Your task to perform on an android device: Open Google Chrome Image 0: 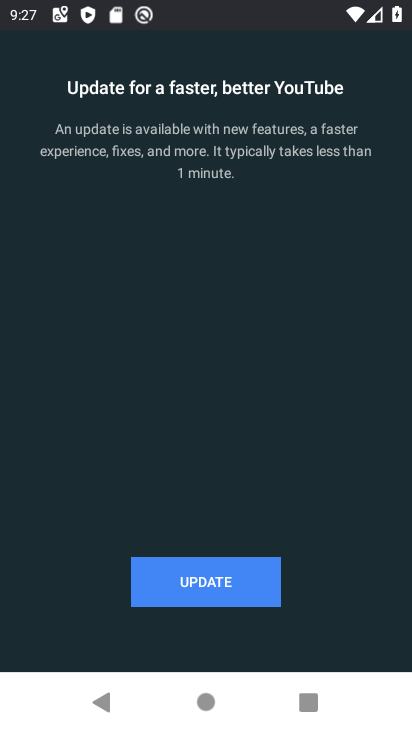
Step 0: drag from (233, 667) to (400, 650)
Your task to perform on an android device: Open Google Chrome Image 1: 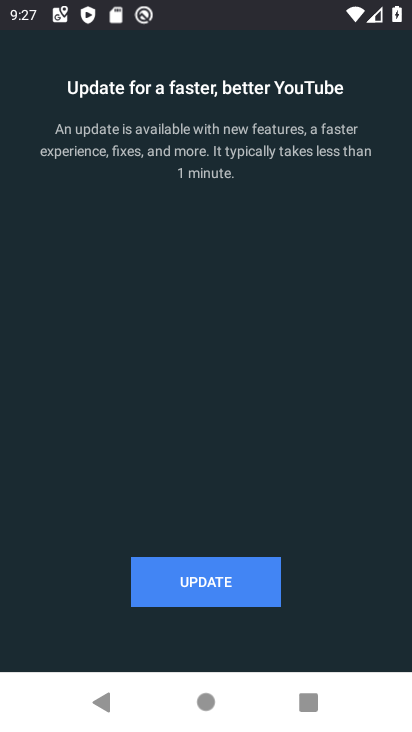
Step 1: press back button
Your task to perform on an android device: Open Google Chrome Image 2: 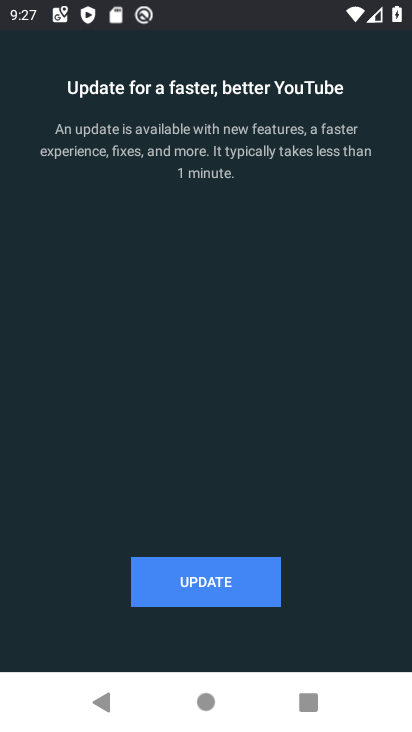
Step 2: drag from (400, 650) to (367, 418)
Your task to perform on an android device: Open Google Chrome Image 3: 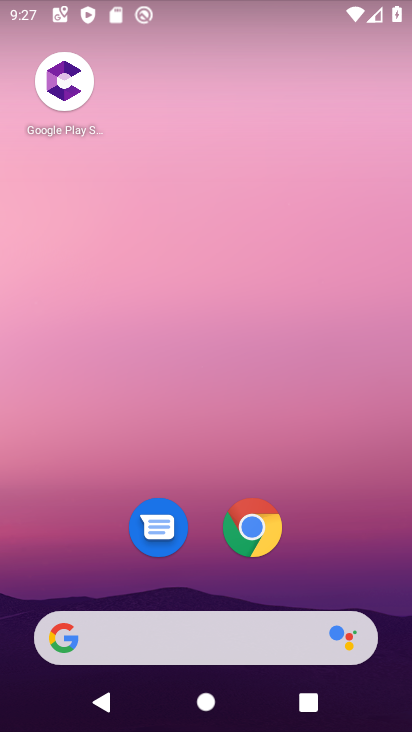
Step 3: drag from (267, 674) to (268, 230)
Your task to perform on an android device: Open Google Chrome Image 4: 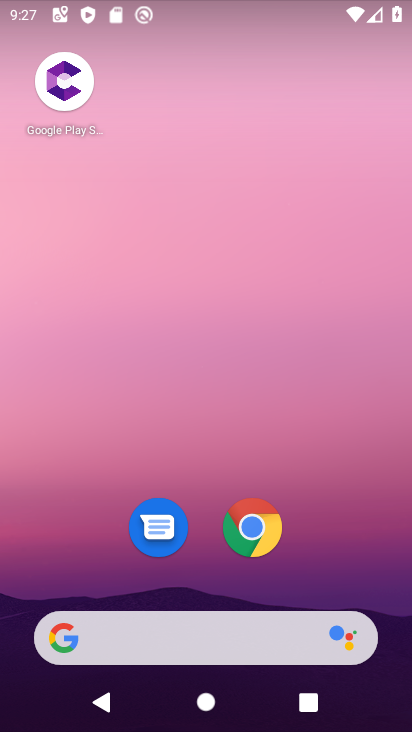
Step 4: drag from (235, 674) to (247, 152)
Your task to perform on an android device: Open Google Chrome Image 5: 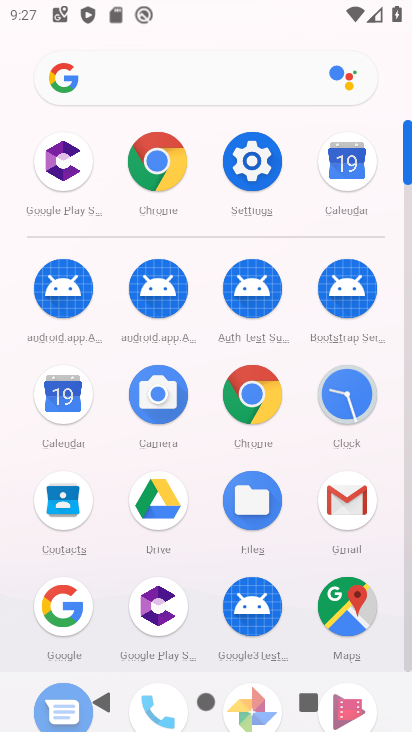
Step 5: click (148, 175)
Your task to perform on an android device: Open Google Chrome Image 6: 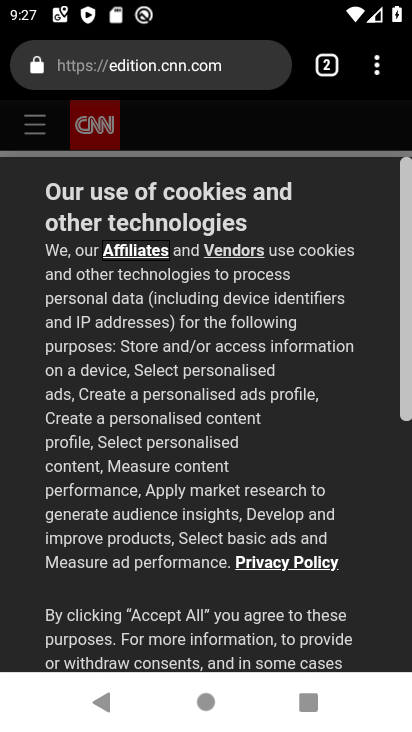
Step 6: click (327, 81)
Your task to perform on an android device: Open Google Chrome Image 7: 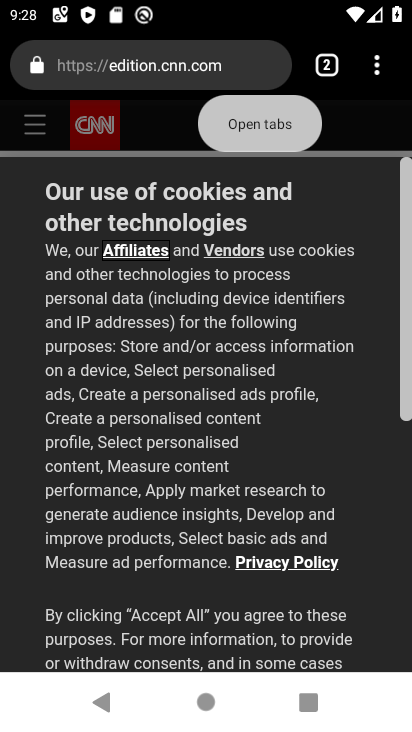
Step 7: click (330, 72)
Your task to perform on an android device: Open Google Chrome Image 8: 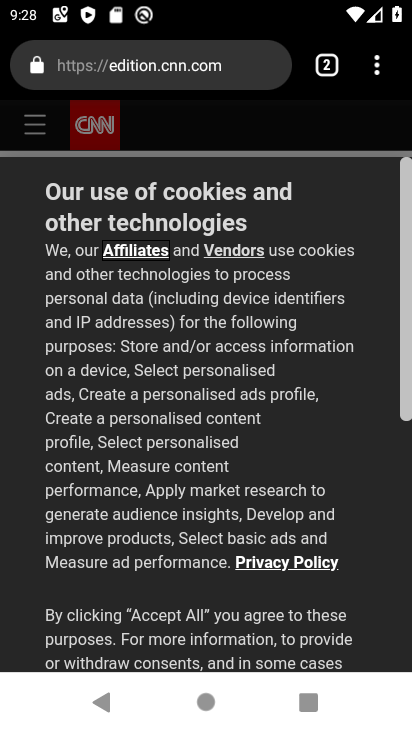
Step 8: click (330, 71)
Your task to perform on an android device: Open Google Chrome Image 9: 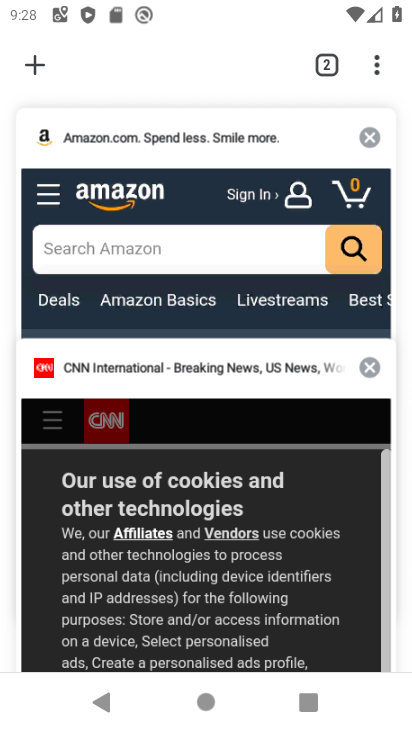
Step 9: click (30, 67)
Your task to perform on an android device: Open Google Chrome Image 10: 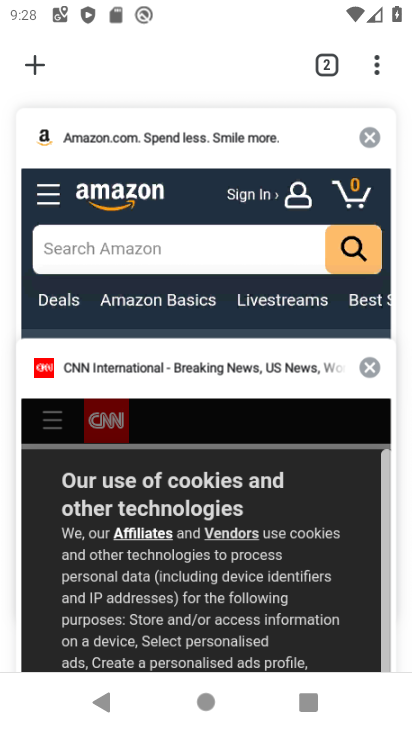
Step 10: click (27, 62)
Your task to perform on an android device: Open Google Chrome Image 11: 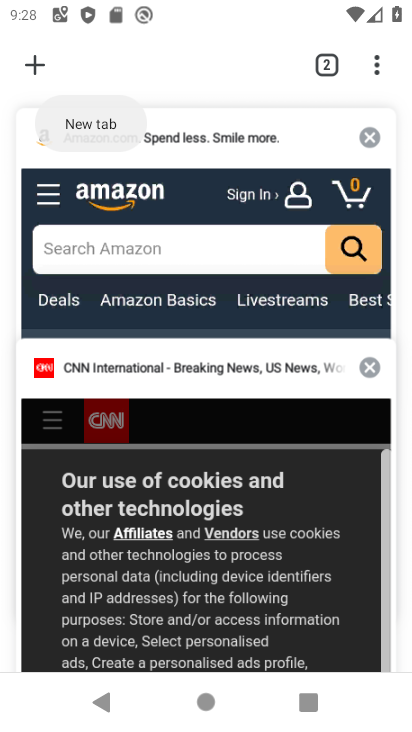
Step 11: task complete